Your task to perform on an android device: change the clock display to show seconds Image 0: 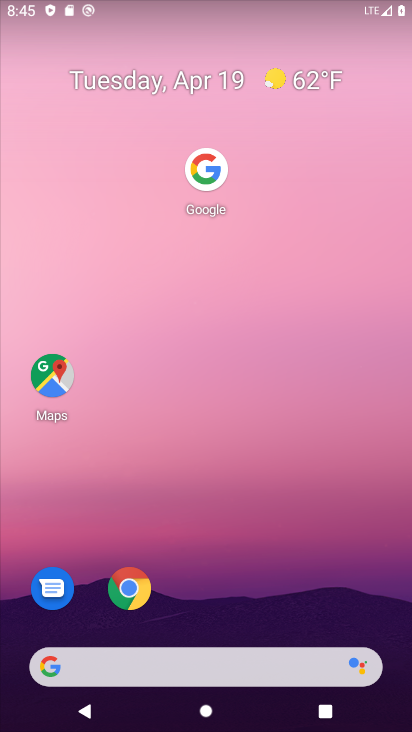
Step 0: drag from (240, 569) to (273, 16)
Your task to perform on an android device: change the clock display to show seconds Image 1: 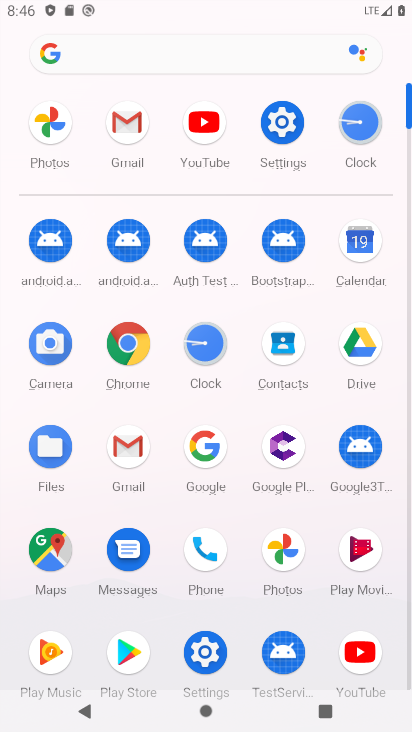
Step 1: click (362, 127)
Your task to perform on an android device: change the clock display to show seconds Image 2: 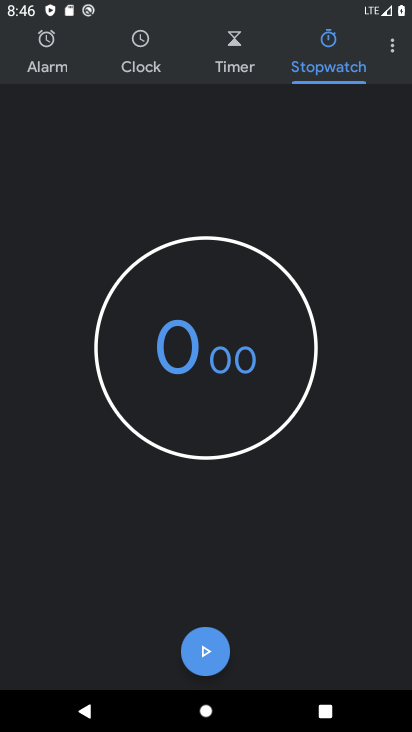
Step 2: click (387, 46)
Your task to perform on an android device: change the clock display to show seconds Image 3: 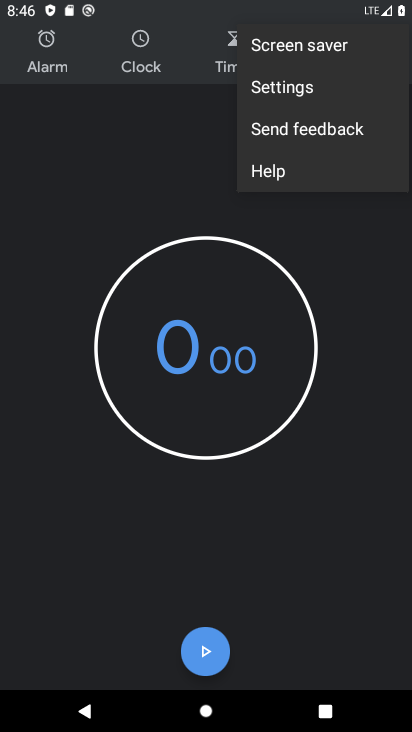
Step 3: click (288, 91)
Your task to perform on an android device: change the clock display to show seconds Image 4: 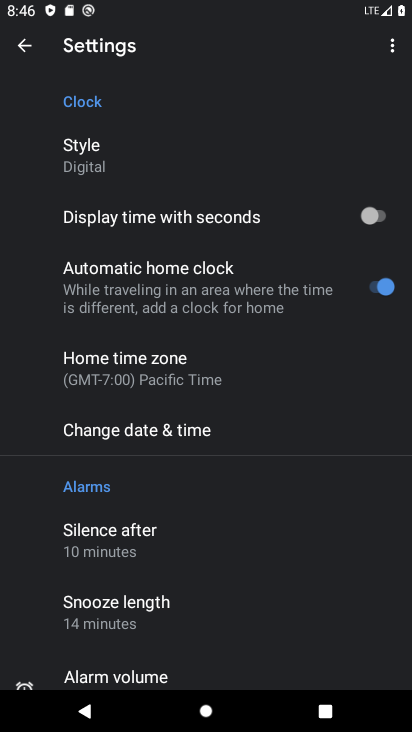
Step 4: click (371, 219)
Your task to perform on an android device: change the clock display to show seconds Image 5: 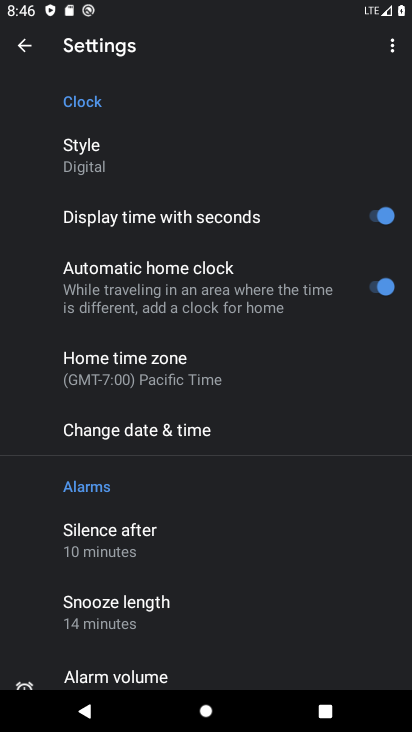
Step 5: task complete